Your task to perform on an android device: Search for pizza restaurants on Maps Image 0: 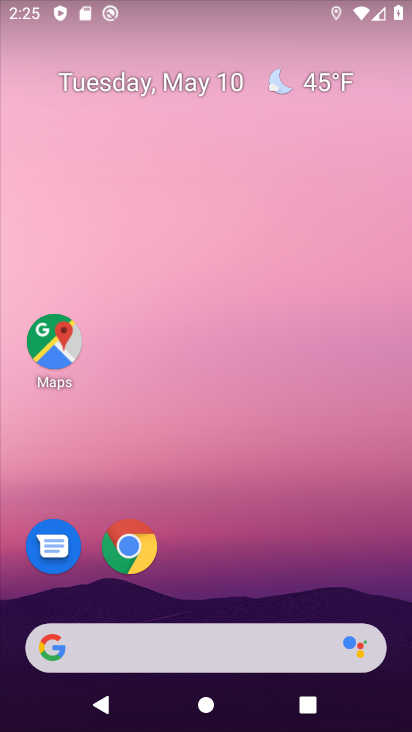
Step 0: drag from (244, 579) to (230, 6)
Your task to perform on an android device: Search for pizza restaurants on Maps Image 1: 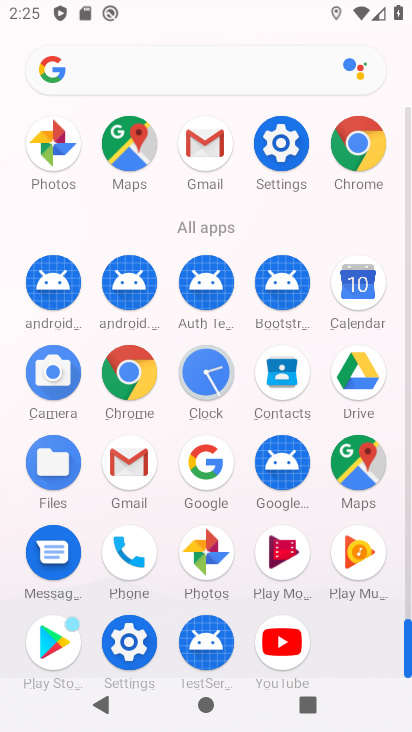
Step 1: click (357, 464)
Your task to perform on an android device: Search for pizza restaurants on Maps Image 2: 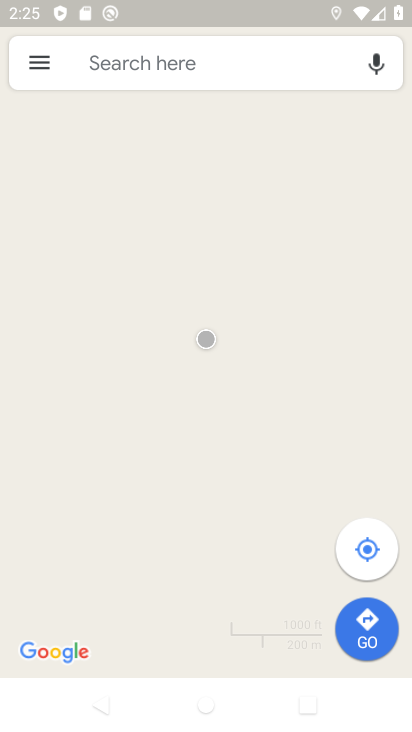
Step 2: click (218, 56)
Your task to perform on an android device: Search for pizza restaurants on Maps Image 3: 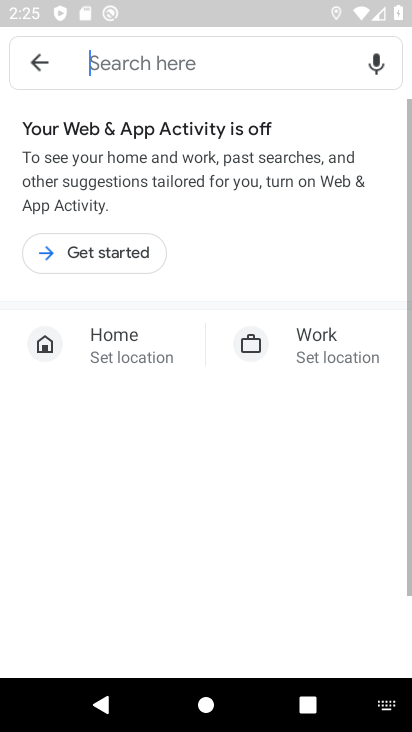
Step 3: type "pizza restaurants "
Your task to perform on an android device: Search for pizza restaurants on Maps Image 4: 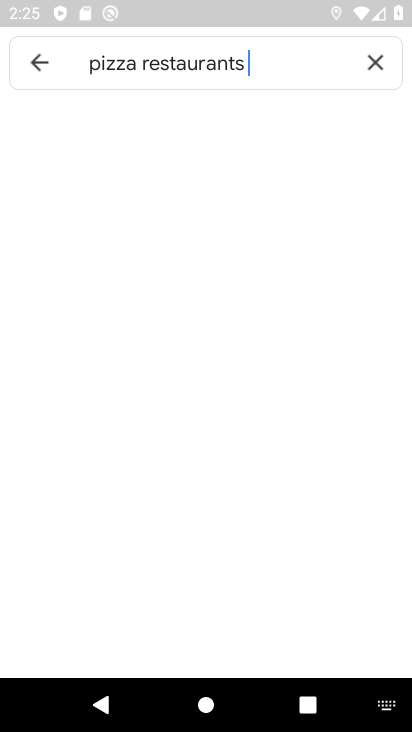
Step 4: type ""
Your task to perform on an android device: Search for pizza restaurants on Maps Image 5: 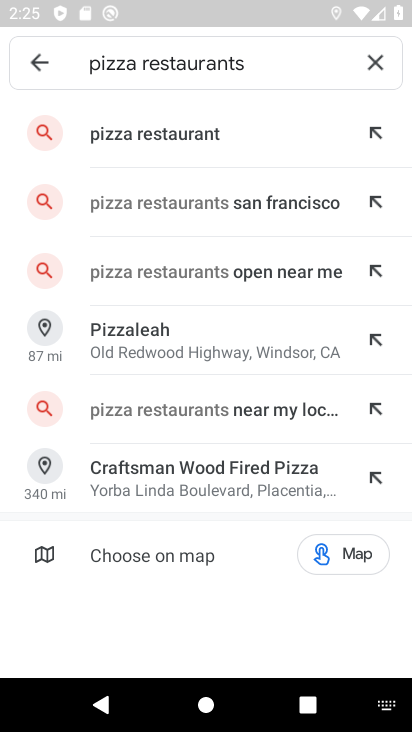
Step 5: click (188, 150)
Your task to perform on an android device: Search for pizza restaurants on Maps Image 6: 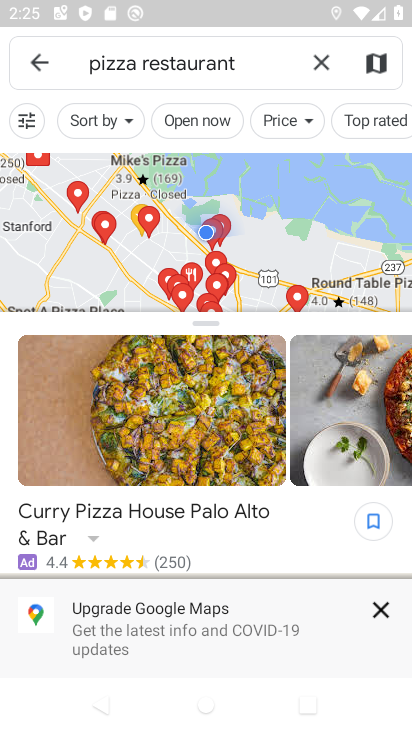
Step 6: task complete